Your task to perform on an android device: Open Yahoo.com Image 0: 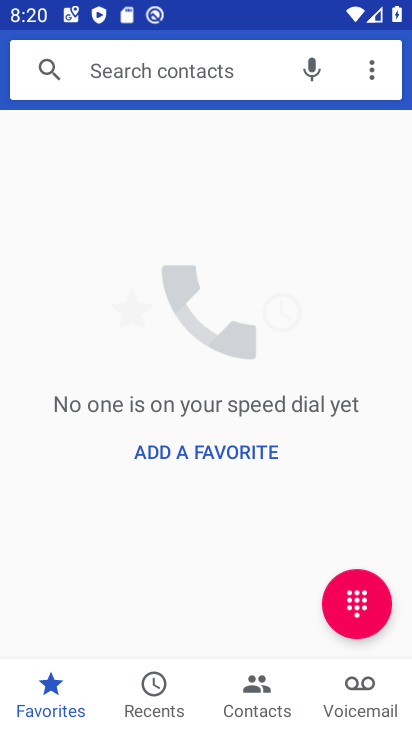
Step 0: press home button
Your task to perform on an android device: Open Yahoo.com Image 1: 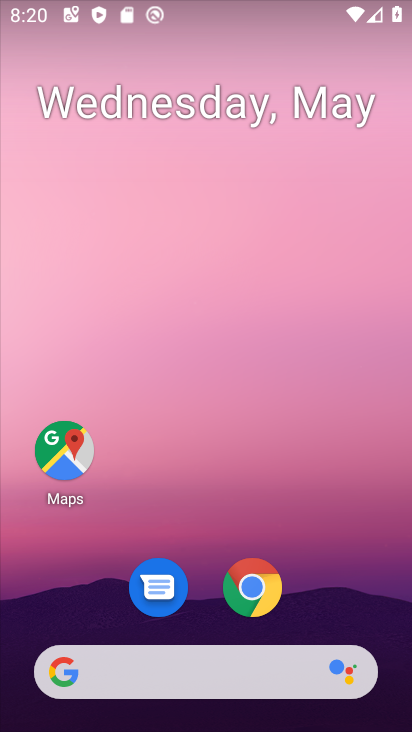
Step 1: click (247, 592)
Your task to perform on an android device: Open Yahoo.com Image 2: 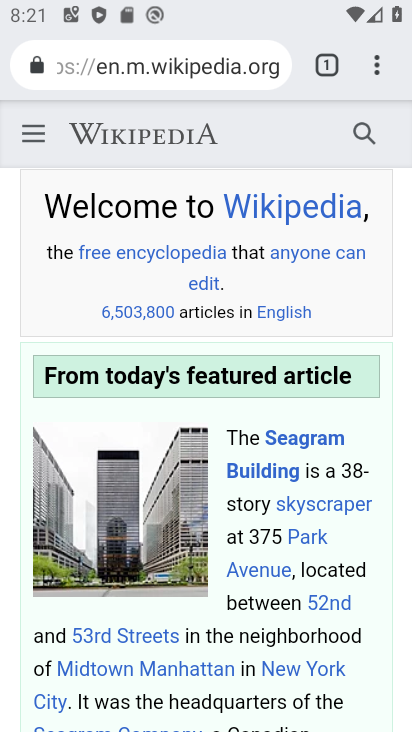
Step 2: click (219, 77)
Your task to perform on an android device: Open Yahoo.com Image 3: 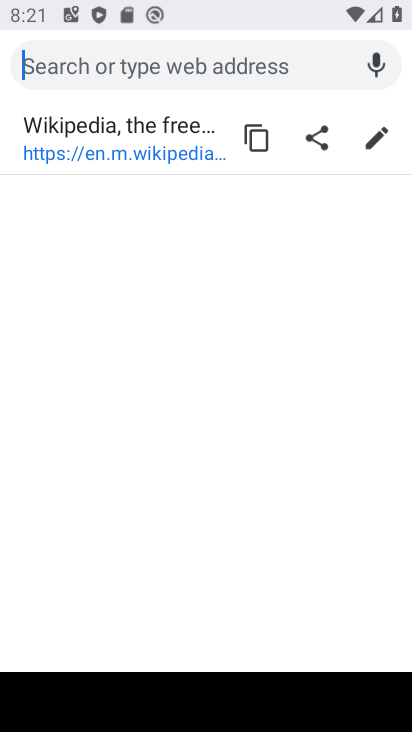
Step 3: type "yahoo.com"
Your task to perform on an android device: Open Yahoo.com Image 4: 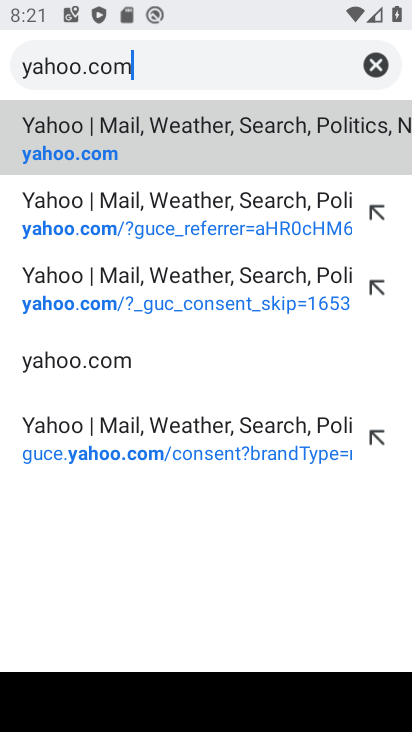
Step 4: click (76, 111)
Your task to perform on an android device: Open Yahoo.com Image 5: 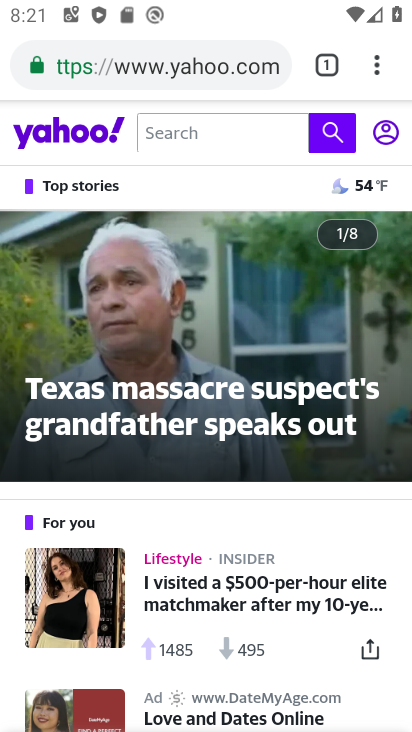
Step 5: task complete